Your task to perform on an android device: Search for "dell alienware" on newegg.com, select the first entry, and add it to the cart. Image 0: 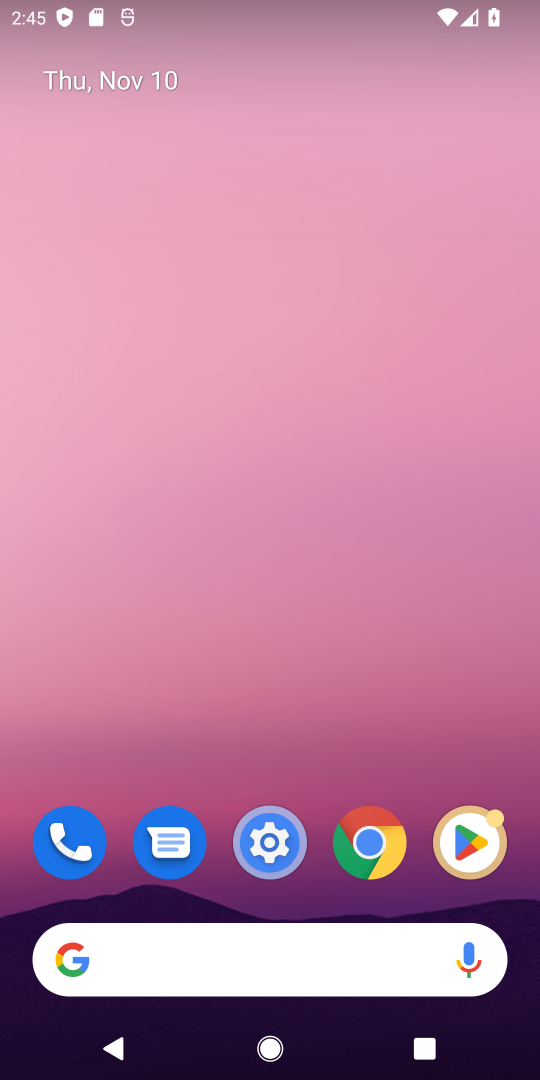
Step 0: press home button
Your task to perform on an android device: Search for "dell alienware" on newegg.com, select the first entry, and add it to the cart. Image 1: 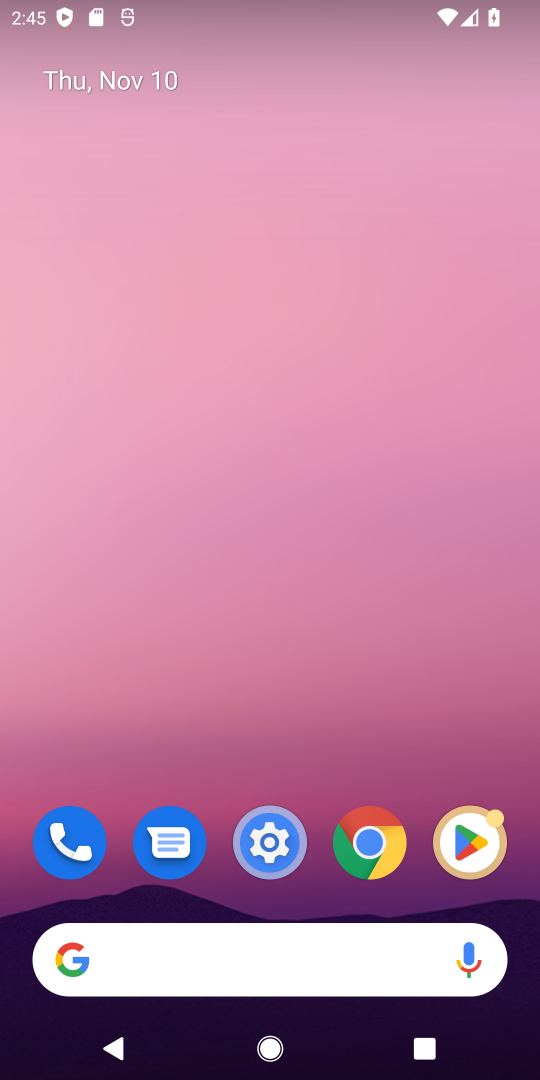
Step 1: click (117, 957)
Your task to perform on an android device: Search for "dell alienware" on newegg.com, select the first entry, and add it to the cart. Image 2: 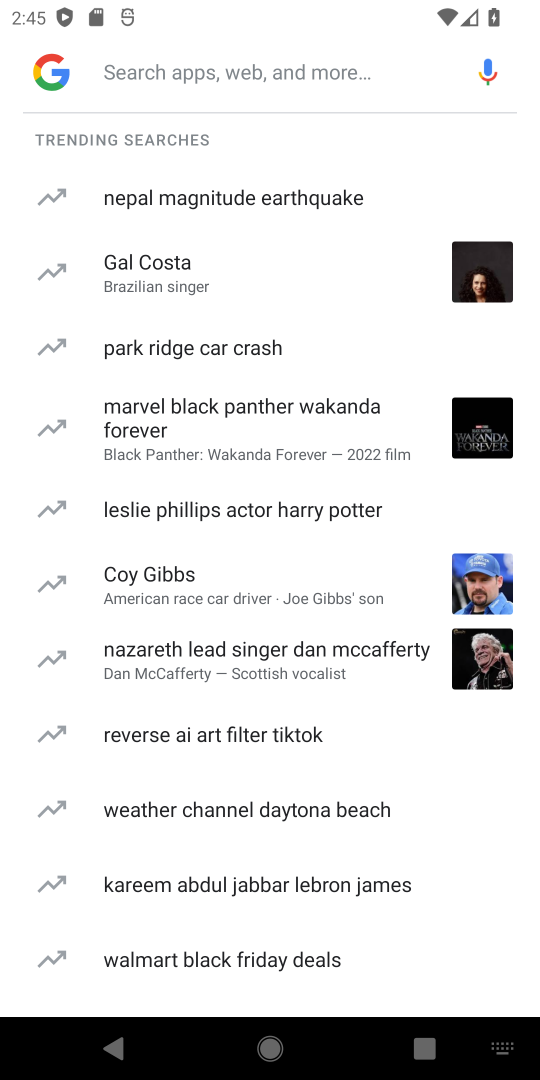
Step 2: type "newegg.com"
Your task to perform on an android device: Search for "dell alienware" on newegg.com, select the first entry, and add it to the cart. Image 3: 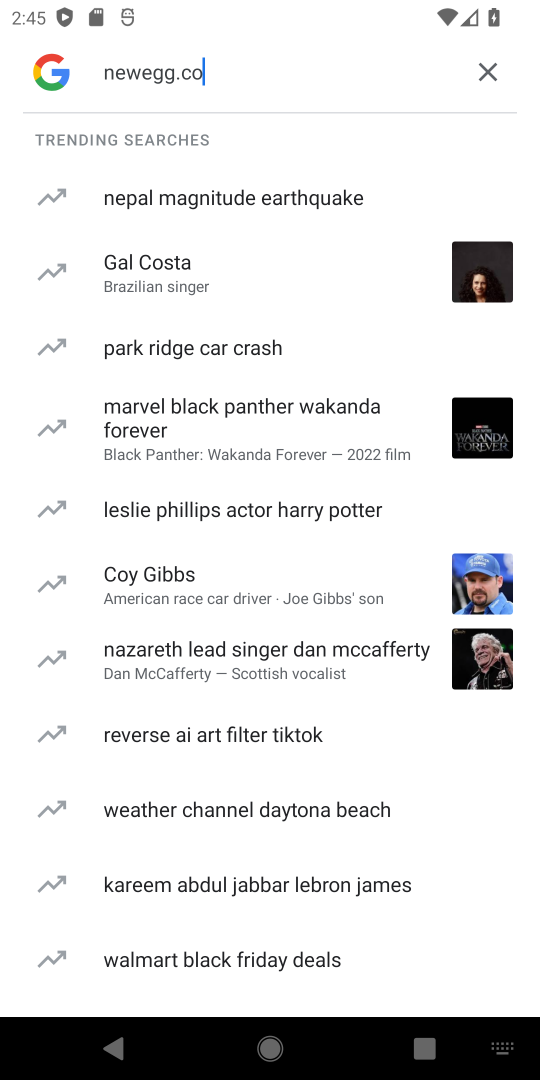
Step 3: press enter
Your task to perform on an android device: Search for "dell alienware" on newegg.com, select the first entry, and add it to the cart. Image 4: 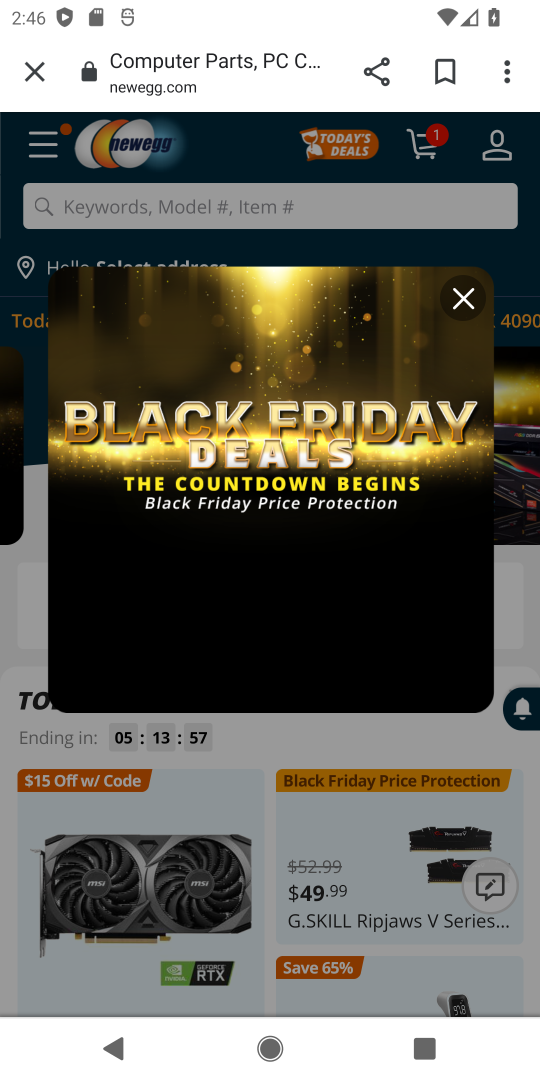
Step 4: click (466, 307)
Your task to perform on an android device: Search for "dell alienware" on newegg.com, select the first entry, and add it to the cart. Image 5: 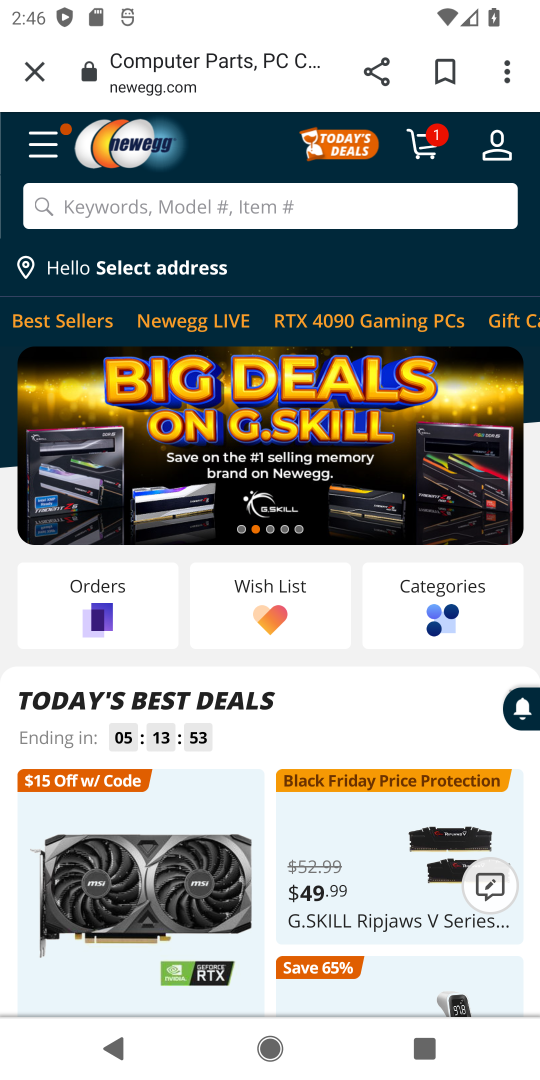
Step 5: click (130, 208)
Your task to perform on an android device: Search for "dell alienware" on newegg.com, select the first entry, and add it to the cart. Image 6: 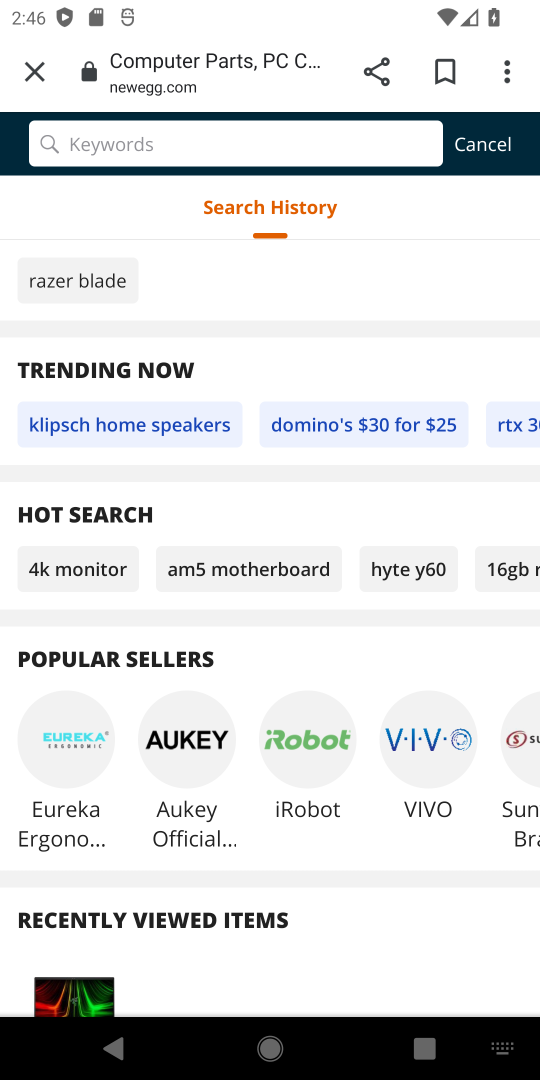
Step 6: type "dell alienware"
Your task to perform on an android device: Search for "dell alienware" on newegg.com, select the first entry, and add it to the cart. Image 7: 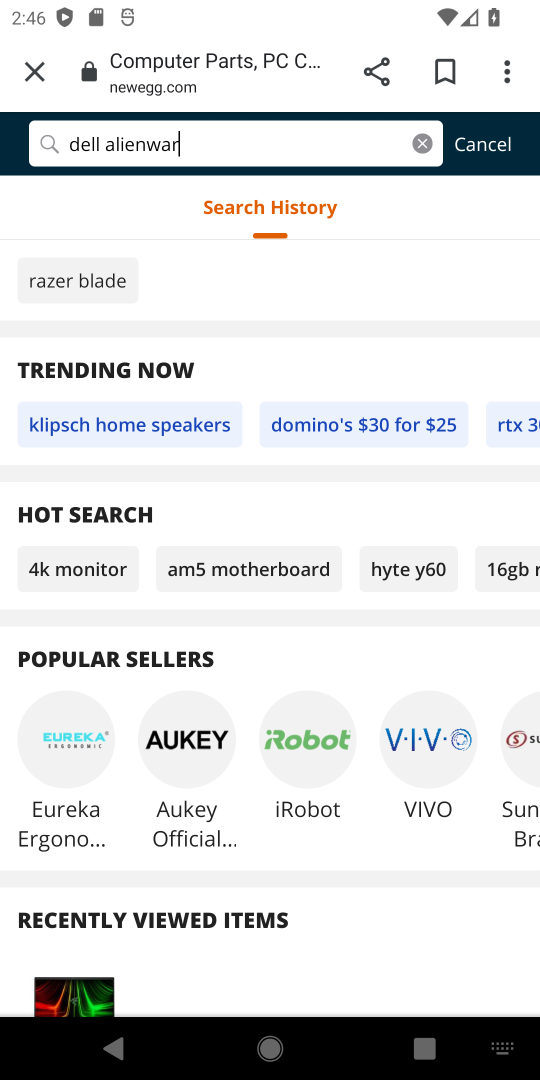
Step 7: press enter
Your task to perform on an android device: Search for "dell alienware" on newegg.com, select the first entry, and add it to the cart. Image 8: 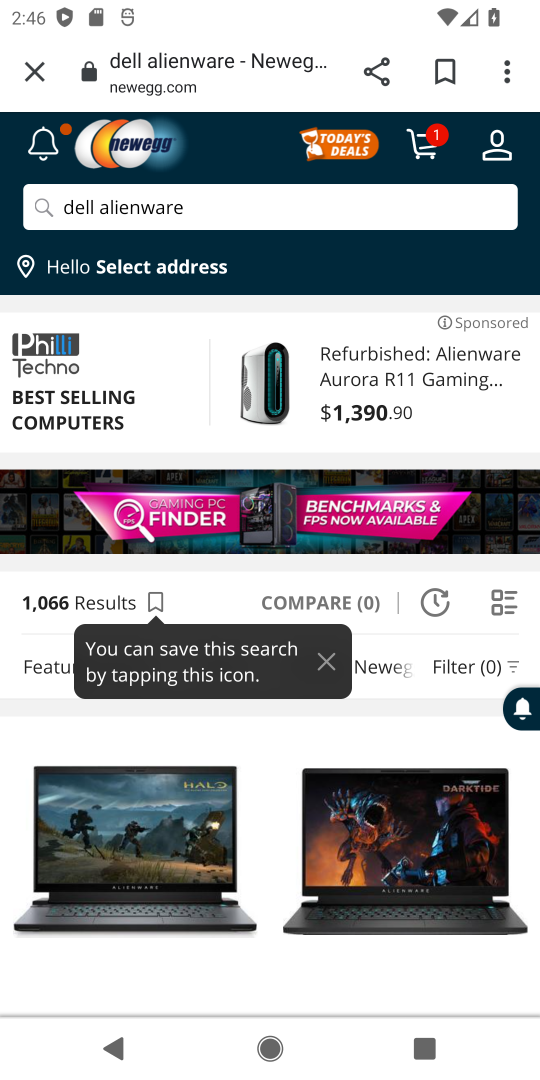
Step 8: drag from (272, 714) to (288, 371)
Your task to perform on an android device: Search for "dell alienware" on newegg.com, select the first entry, and add it to the cart. Image 9: 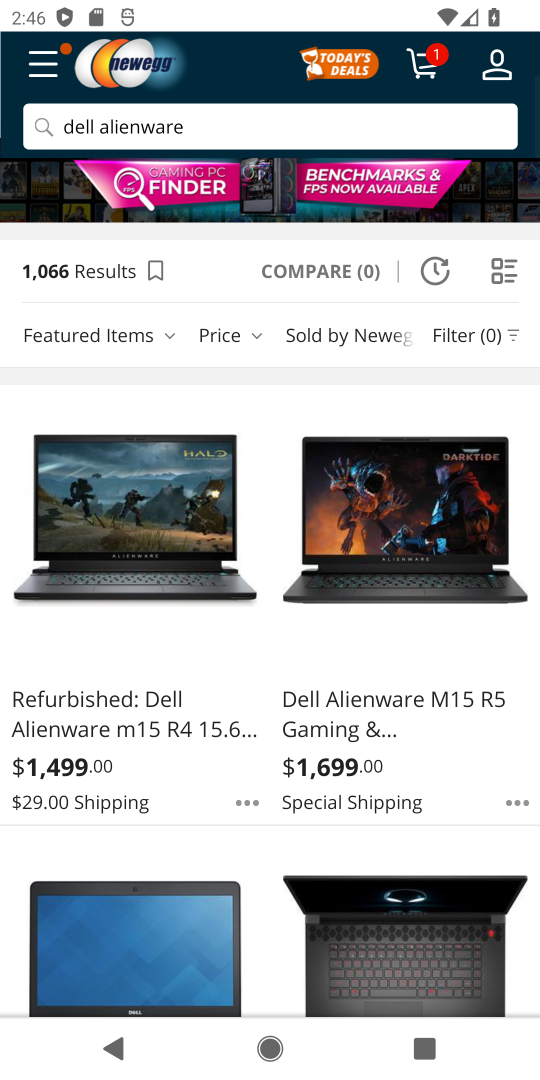
Step 9: drag from (278, 787) to (279, 617)
Your task to perform on an android device: Search for "dell alienware" on newegg.com, select the first entry, and add it to the cart. Image 10: 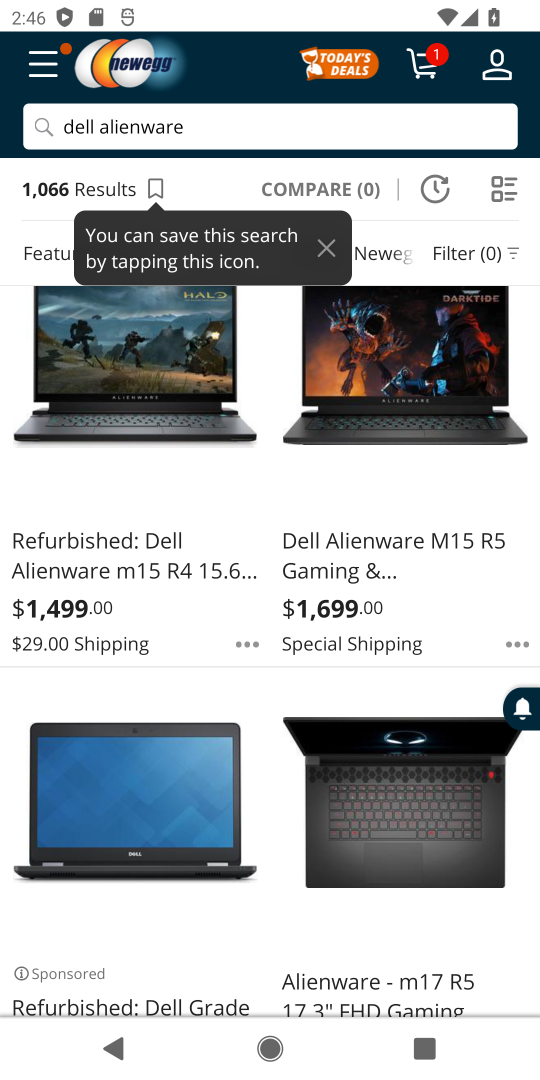
Step 10: drag from (273, 869) to (275, 667)
Your task to perform on an android device: Search for "dell alienware" on newegg.com, select the first entry, and add it to the cart. Image 11: 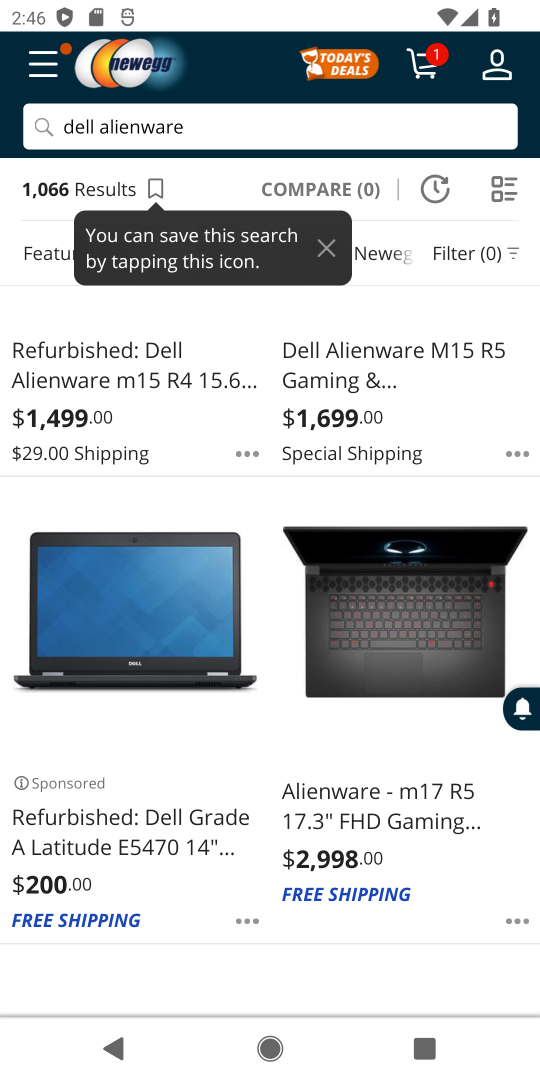
Step 11: click (364, 360)
Your task to perform on an android device: Search for "dell alienware" on newegg.com, select the first entry, and add it to the cart. Image 12: 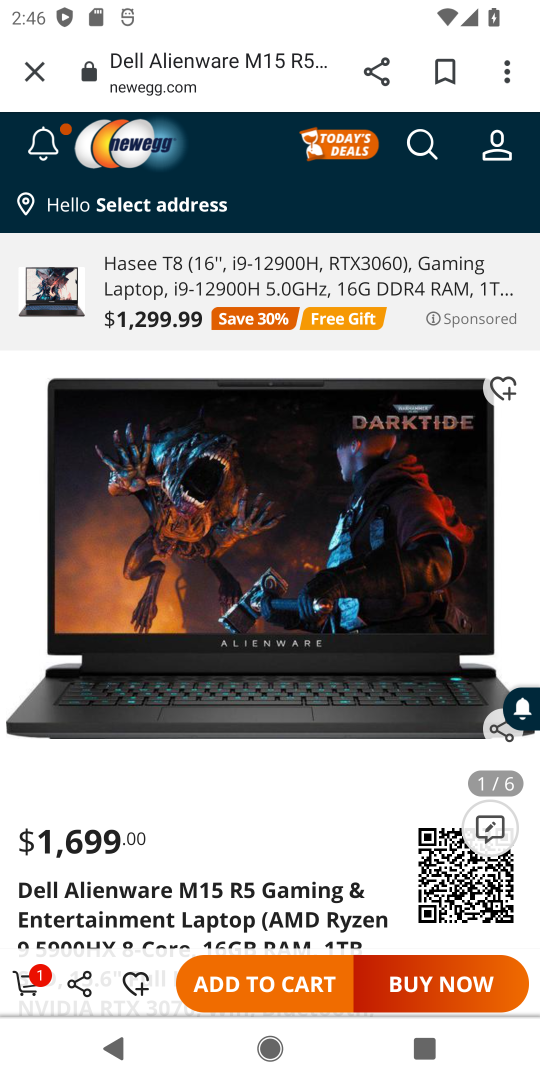
Step 12: drag from (252, 796) to (252, 406)
Your task to perform on an android device: Search for "dell alienware" on newegg.com, select the first entry, and add it to the cart. Image 13: 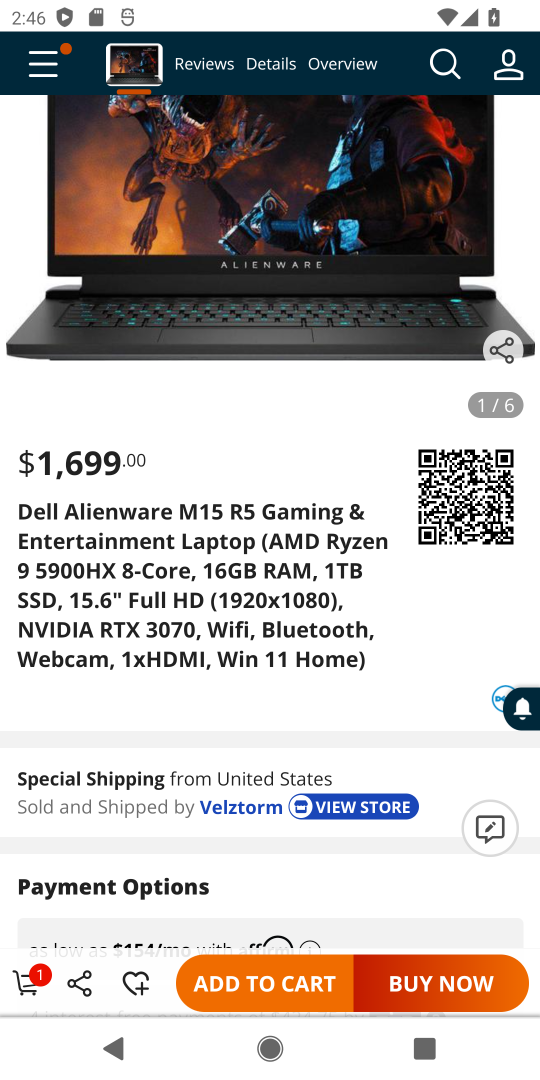
Step 13: click (231, 989)
Your task to perform on an android device: Search for "dell alienware" on newegg.com, select the first entry, and add it to the cart. Image 14: 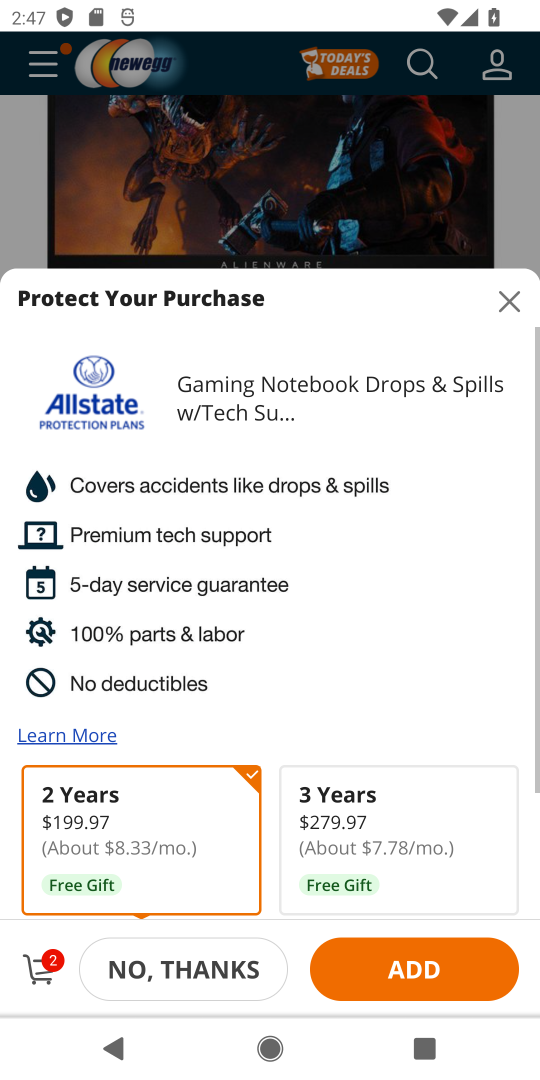
Step 14: task complete